Your task to perform on an android device: Turn off the flashlight Image 0: 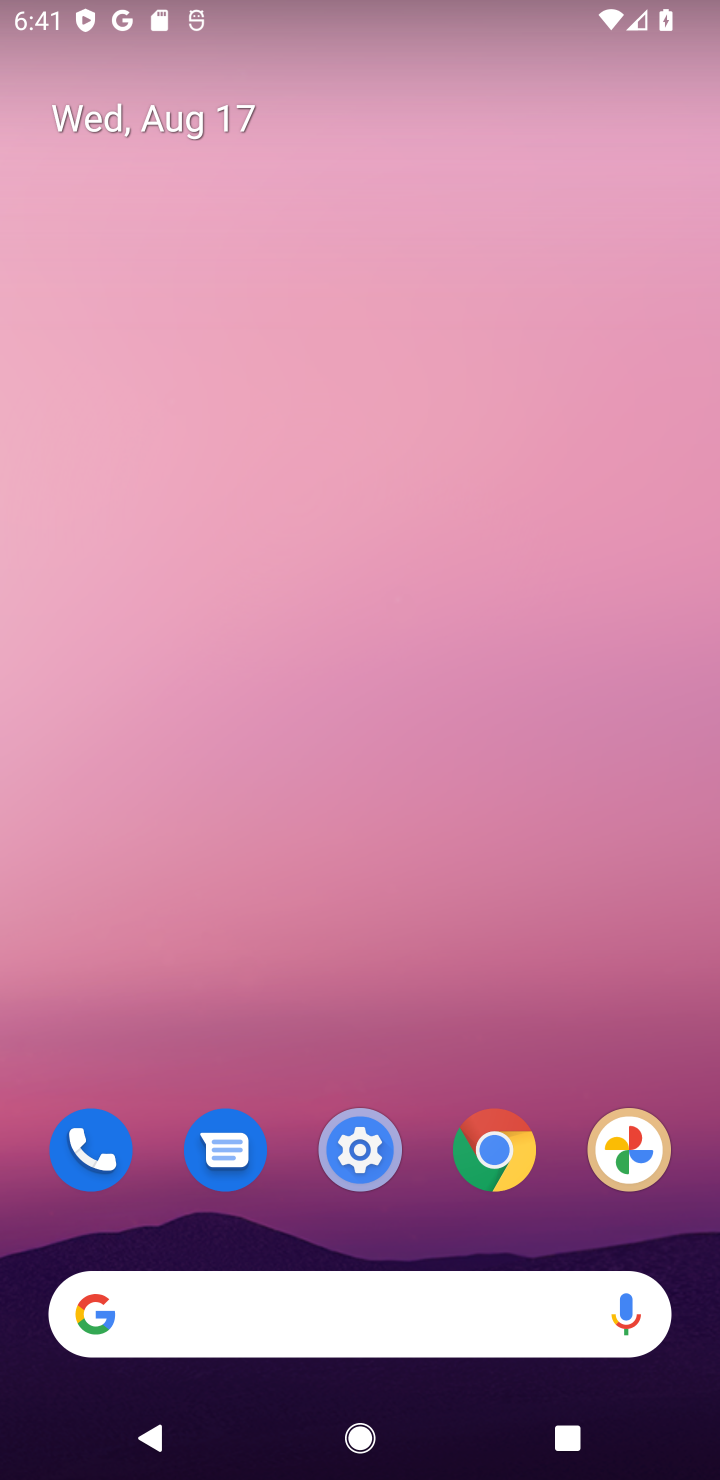
Step 0: drag from (409, 51) to (365, 1130)
Your task to perform on an android device: Turn off the flashlight Image 1: 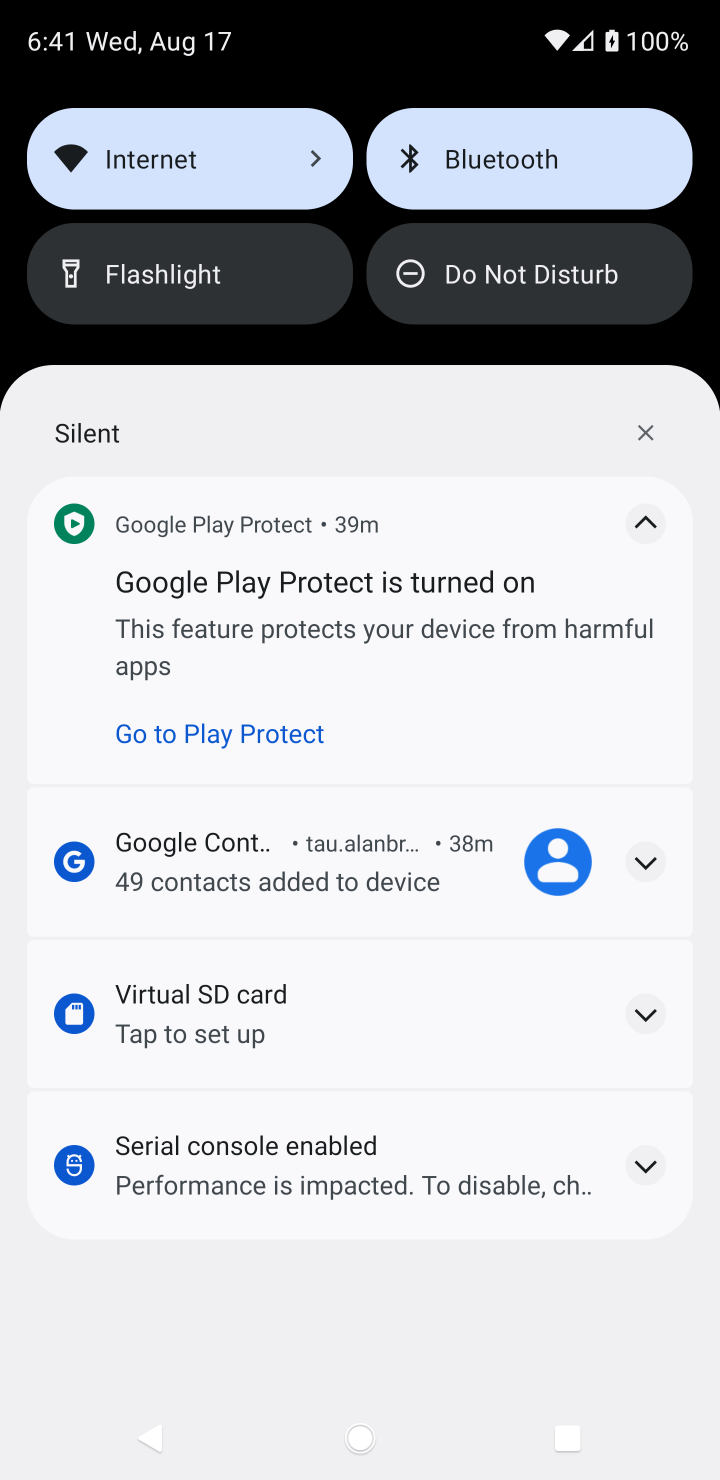
Step 1: task complete